Your task to perform on an android device: check storage Image 0: 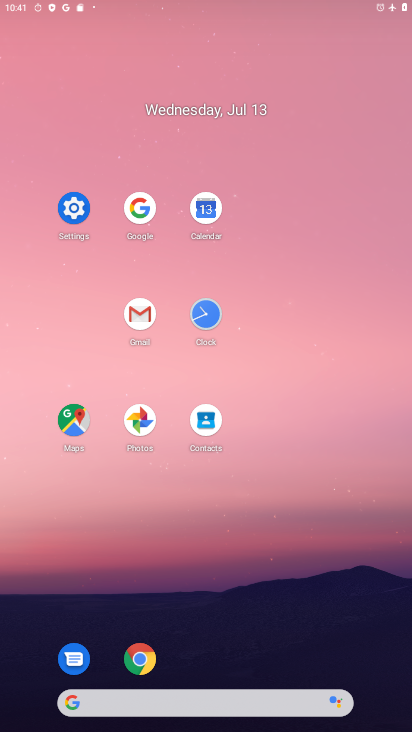
Step 0: click (67, 208)
Your task to perform on an android device: check storage Image 1: 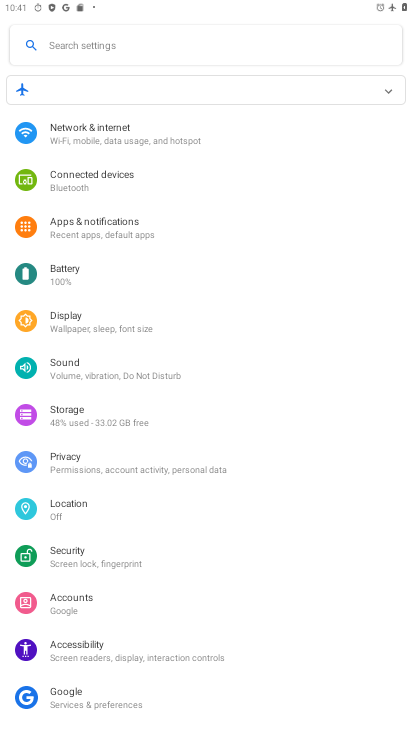
Step 1: click (124, 425)
Your task to perform on an android device: check storage Image 2: 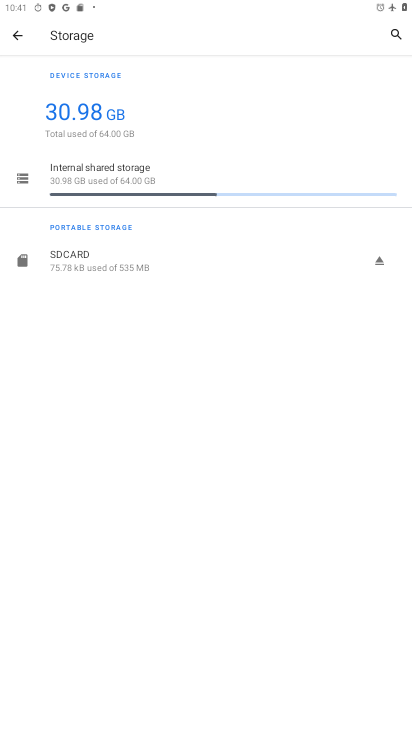
Step 2: task complete